Your task to perform on an android device: Go to ESPN.com Image 0: 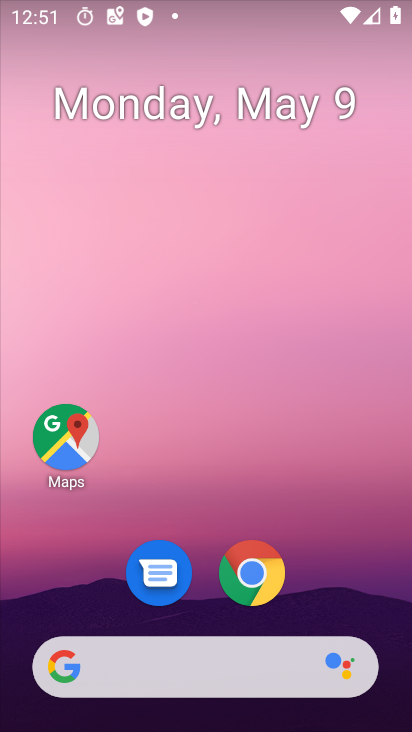
Step 0: click (244, 571)
Your task to perform on an android device: Go to ESPN.com Image 1: 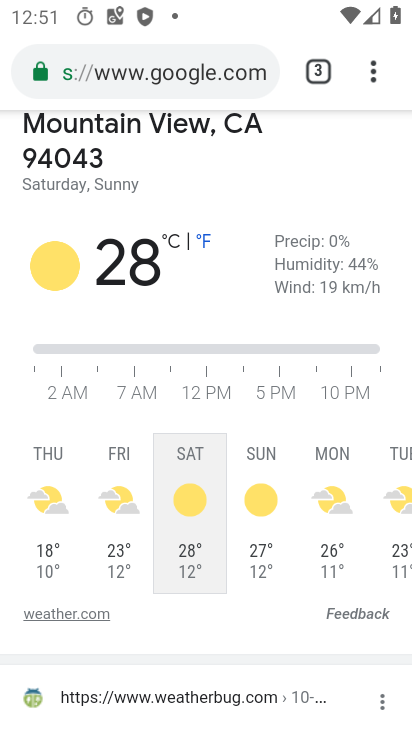
Step 1: click (325, 68)
Your task to perform on an android device: Go to ESPN.com Image 2: 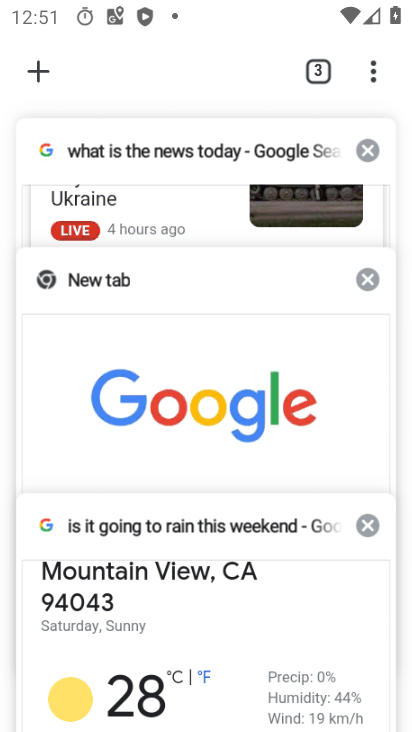
Step 2: click (40, 67)
Your task to perform on an android device: Go to ESPN.com Image 3: 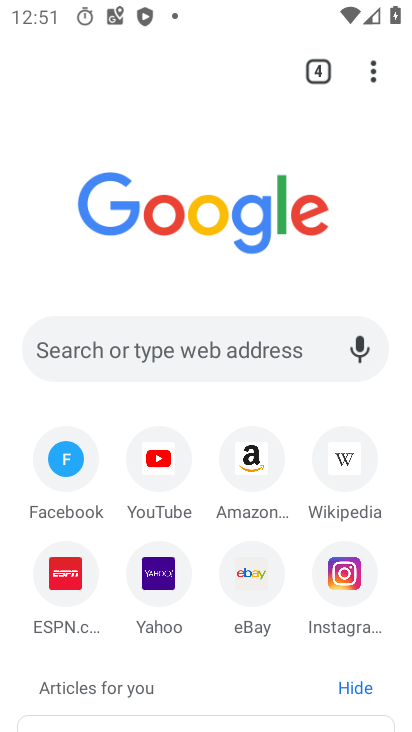
Step 3: click (57, 587)
Your task to perform on an android device: Go to ESPN.com Image 4: 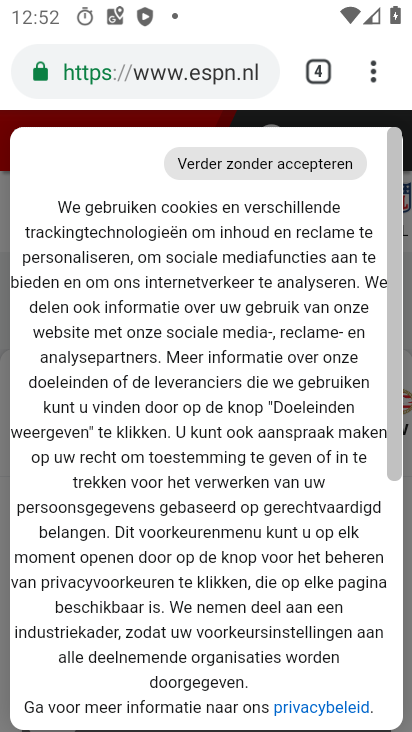
Step 4: task complete